Your task to perform on an android device: Go to display settings Image 0: 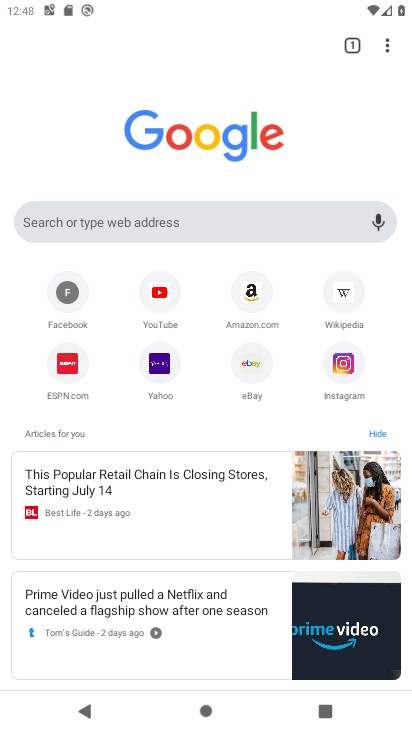
Step 0: press home button
Your task to perform on an android device: Go to display settings Image 1: 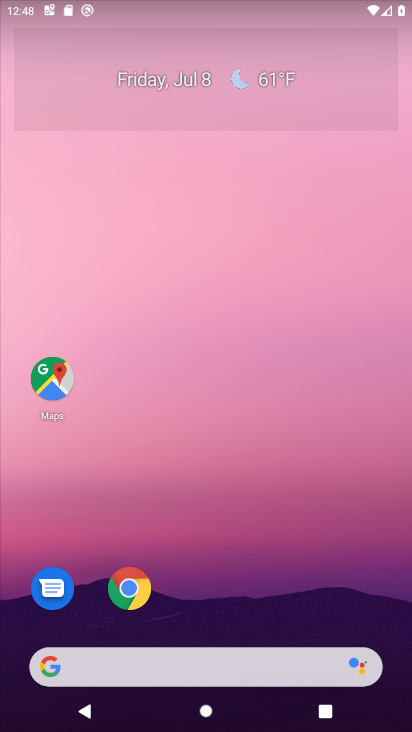
Step 1: drag from (260, 491) to (271, 35)
Your task to perform on an android device: Go to display settings Image 2: 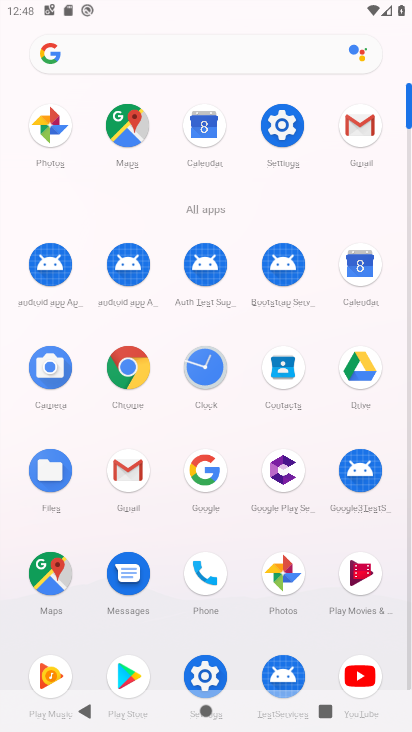
Step 2: click (267, 116)
Your task to perform on an android device: Go to display settings Image 3: 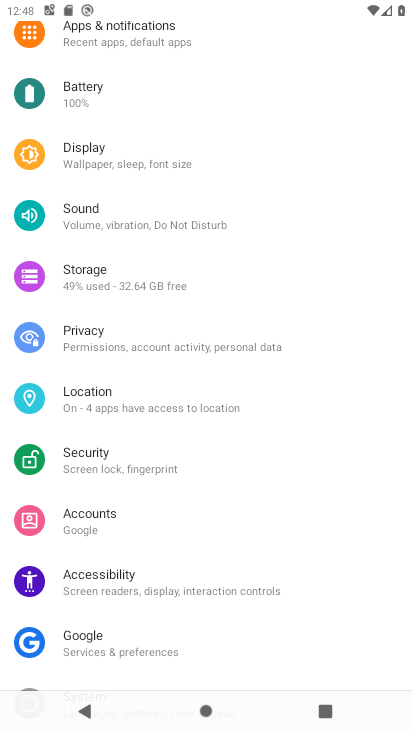
Step 3: click (141, 161)
Your task to perform on an android device: Go to display settings Image 4: 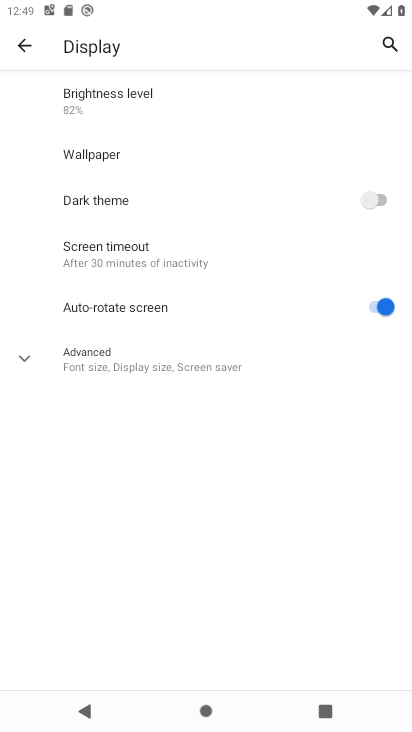
Step 4: task complete